Your task to perform on an android device: star an email in the gmail app Image 0: 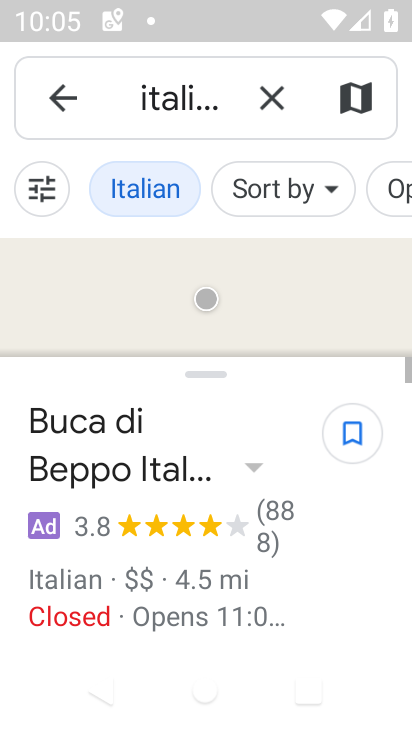
Step 0: press home button
Your task to perform on an android device: star an email in the gmail app Image 1: 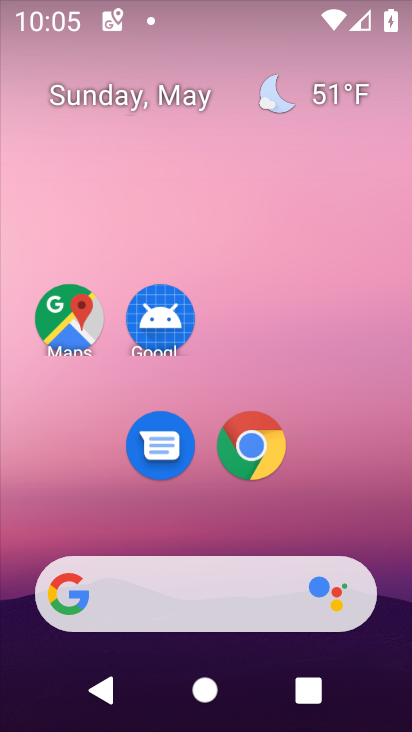
Step 1: drag from (323, 499) to (232, 104)
Your task to perform on an android device: star an email in the gmail app Image 2: 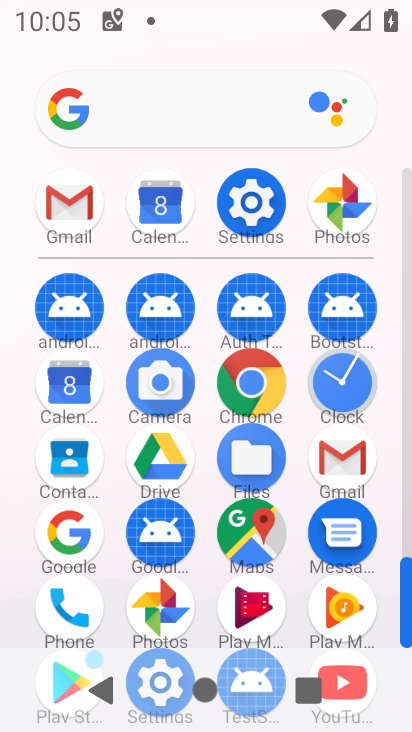
Step 2: click (63, 194)
Your task to perform on an android device: star an email in the gmail app Image 3: 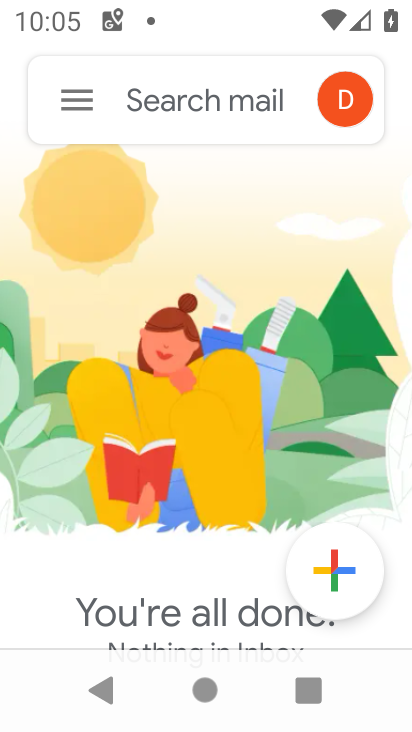
Step 3: click (74, 97)
Your task to perform on an android device: star an email in the gmail app Image 4: 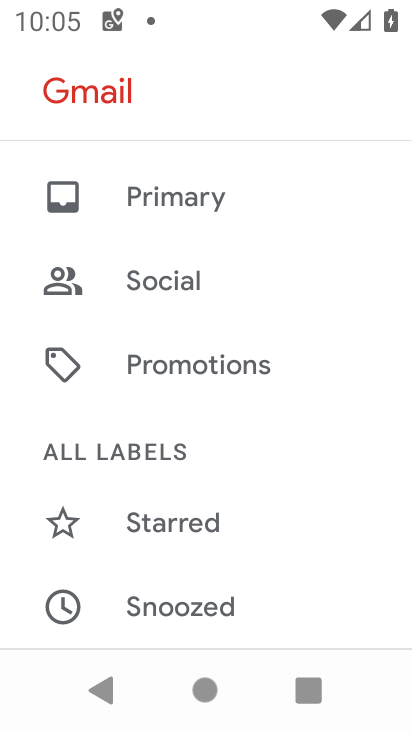
Step 4: drag from (189, 541) to (144, 232)
Your task to perform on an android device: star an email in the gmail app Image 5: 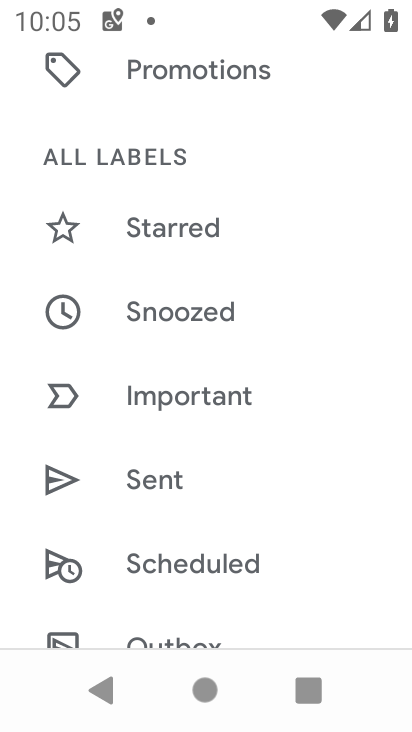
Step 5: click (164, 231)
Your task to perform on an android device: star an email in the gmail app Image 6: 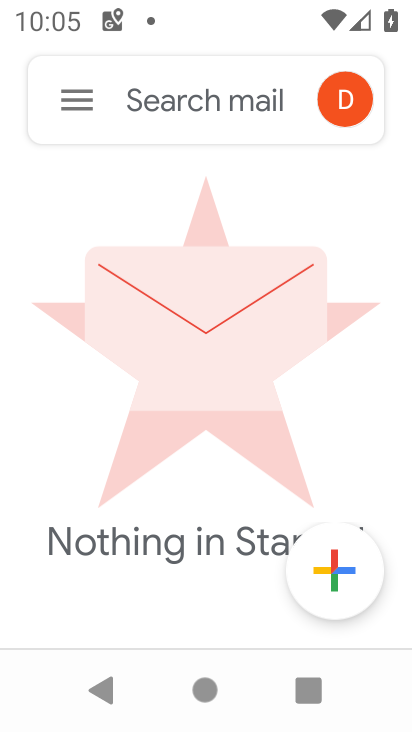
Step 6: click (67, 105)
Your task to perform on an android device: star an email in the gmail app Image 7: 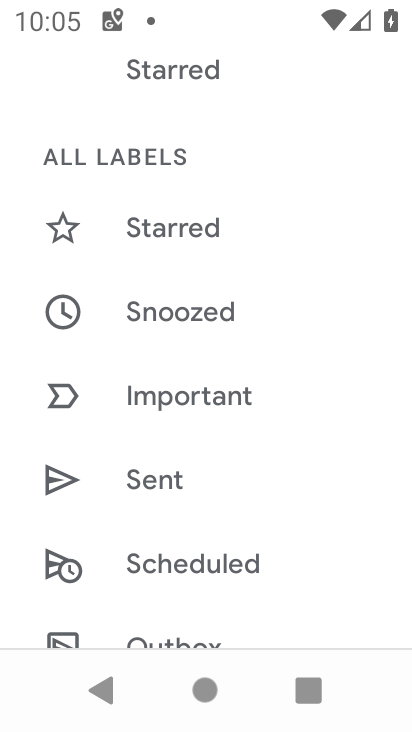
Step 7: drag from (170, 493) to (118, 107)
Your task to perform on an android device: star an email in the gmail app Image 8: 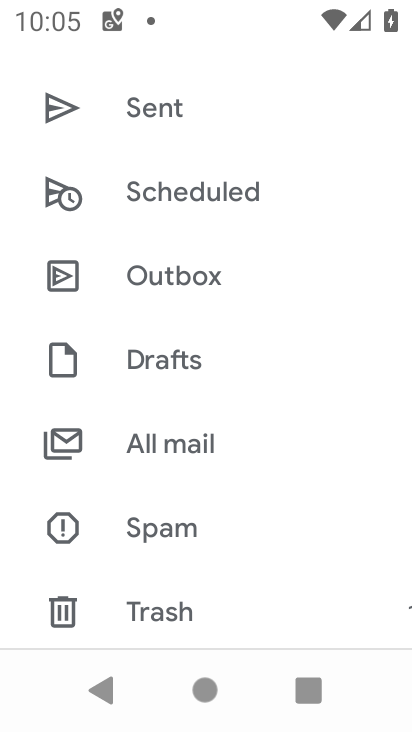
Step 8: click (163, 443)
Your task to perform on an android device: star an email in the gmail app Image 9: 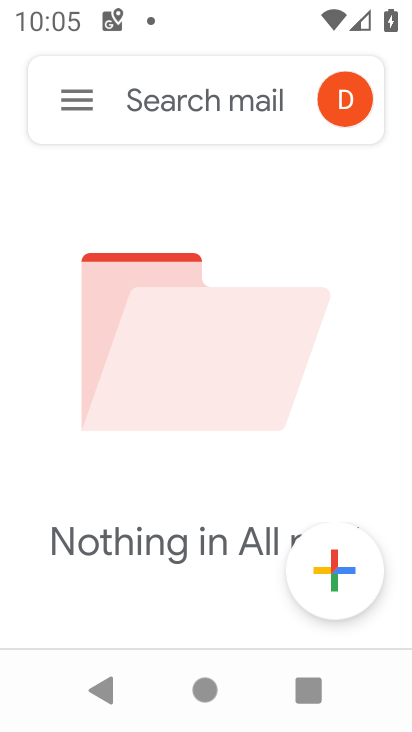
Step 9: task complete